Your task to perform on an android device: all mails in gmail Image 0: 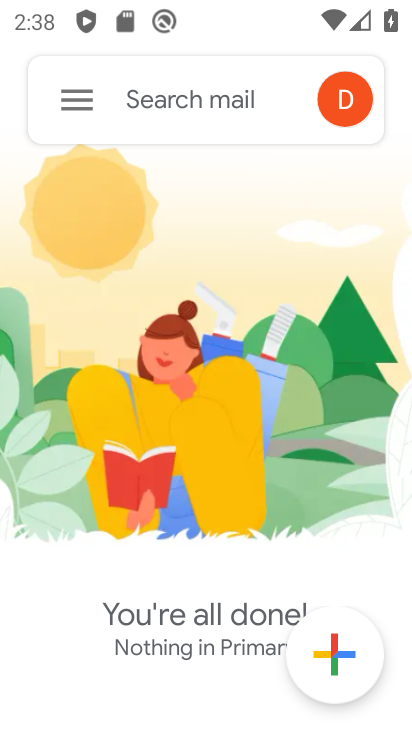
Step 0: click (72, 85)
Your task to perform on an android device: all mails in gmail Image 1: 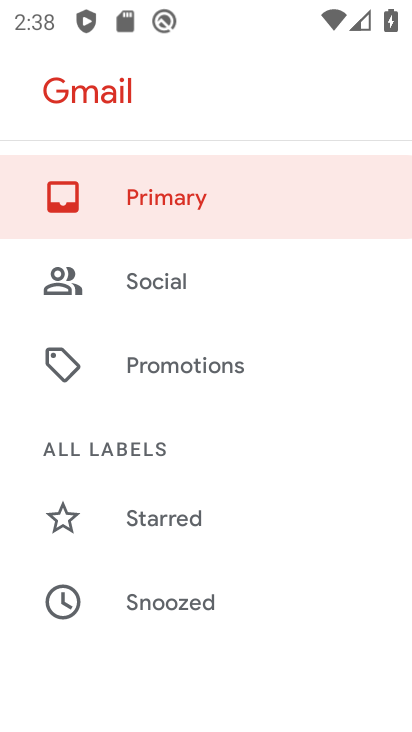
Step 1: drag from (238, 565) to (300, 113)
Your task to perform on an android device: all mails in gmail Image 2: 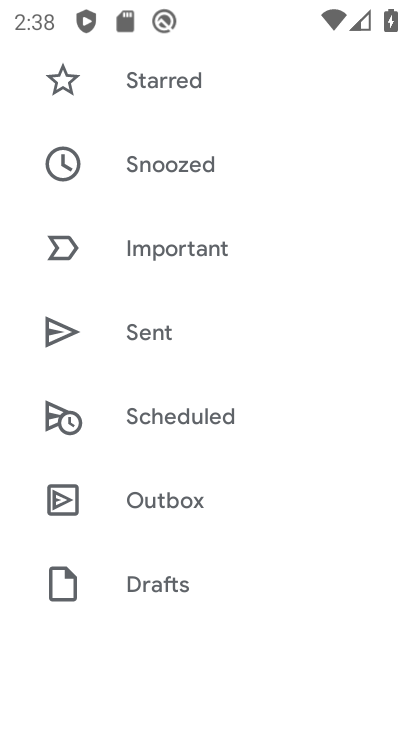
Step 2: drag from (195, 146) to (161, 612)
Your task to perform on an android device: all mails in gmail Image 3: 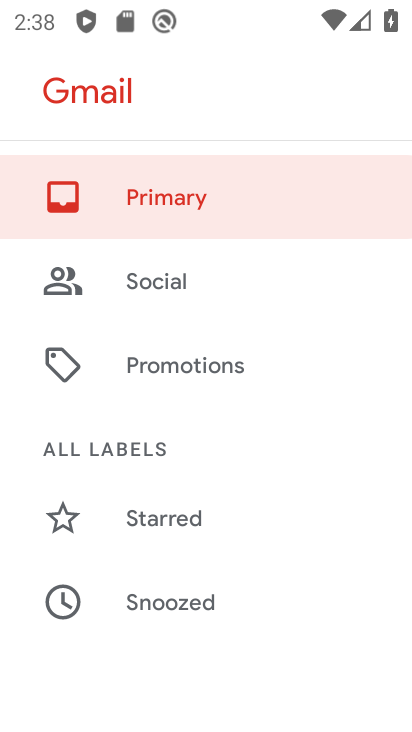
Step 3: drag from (161, 566) to (235, 91)
Your task to perform on an android device: all mails in gmail Image 4: 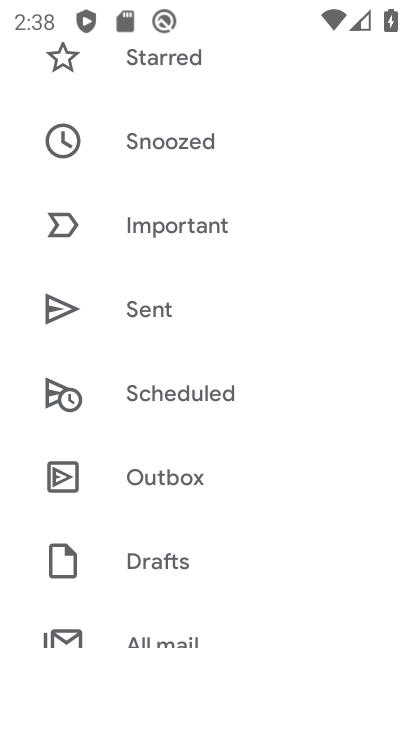
Step 4: click (135, 641)
Your task to perform on an android device: all mails in gmail Image 5: 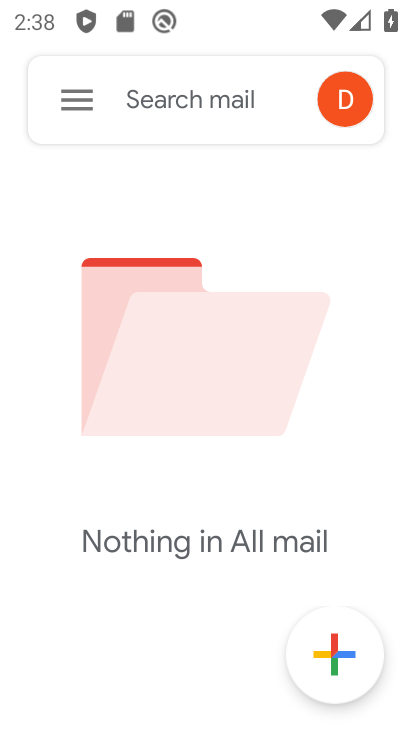
Step 5: task complete